Your task to perform on an android device: open app "Duolingo: language lessons" Image 0: 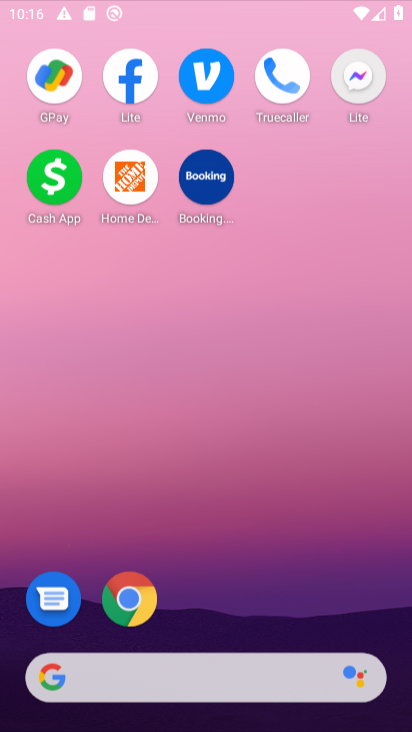
Step 0: drag from (219, 582) to (243, 176)
Your task to perform on an android device: open app "Duolingo: language lessons" Image 1: 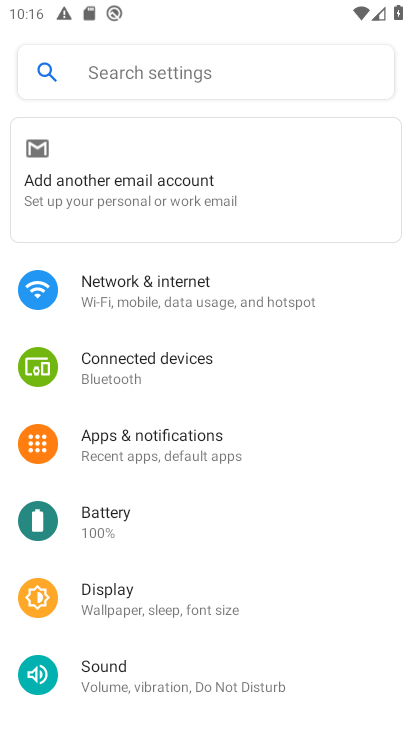
Step 1: press home button
Your task to perform on an android device: open app "Duolingo: language lessons" Image 2: 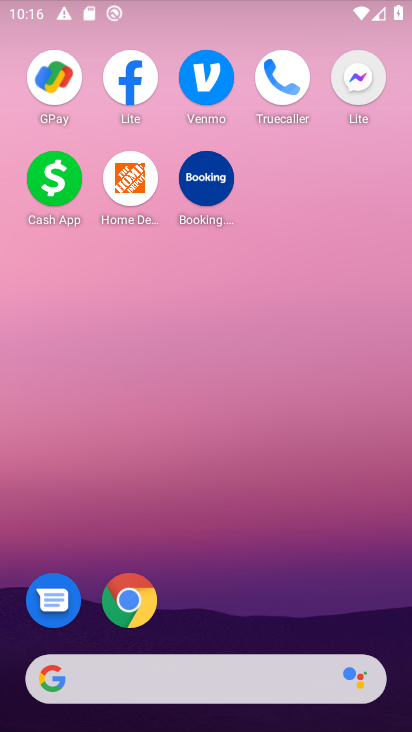
Step 2: drag from (169, 552) to (165, 157)
Your task to perform on an android device: open app "Duolingo: language lessons" Image 3: 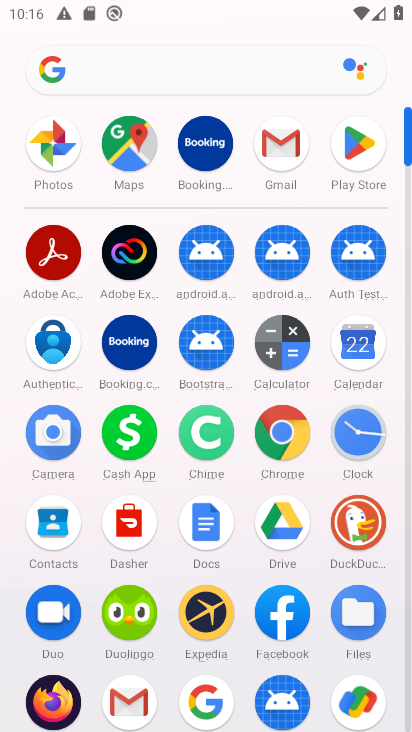
Step 3: click (346, 150)
Your task to perform on an android device: open app "Duolingo: language lessons" Image 4: 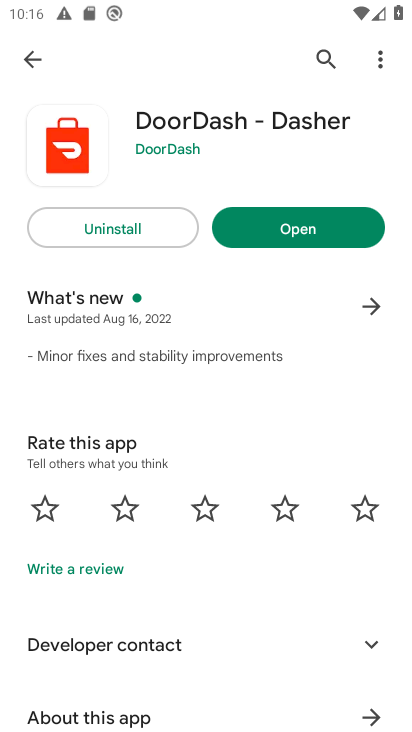
Step 4: click (333, 61)
Your task to perform on an android device: open app "Duolingo: language lessons" Image 5: 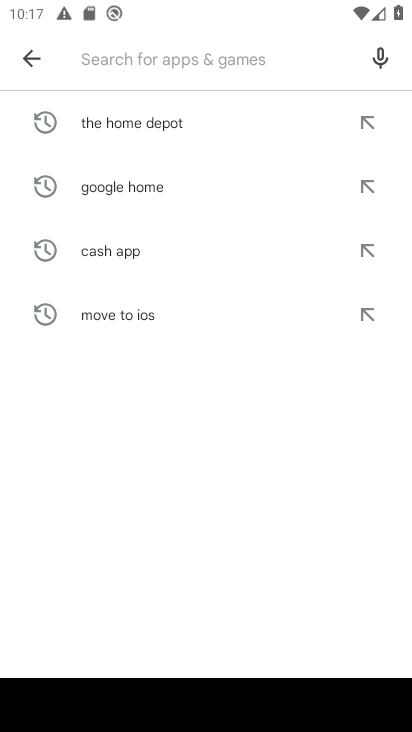
Step 5: type "Duolingo: language lessons"
Your task to perform on an android device: open app "Duolingo: language lessons" Image 6: 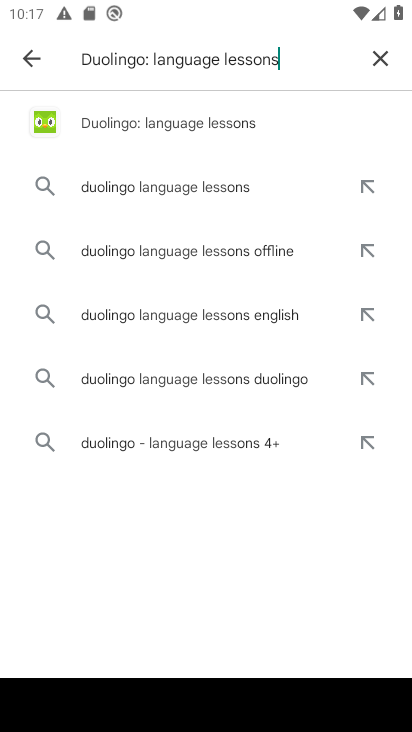
Step 6: type ""
Your task to perform on an android device: open app "Duolingo: language lessons" Image 7: 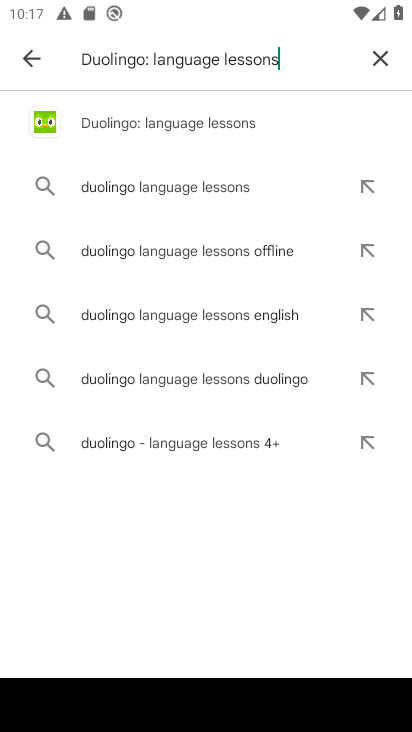
Step 7: click (134, 126)
Your task to perform on an android device: open app "Duolingo: language lessons" Image 8: 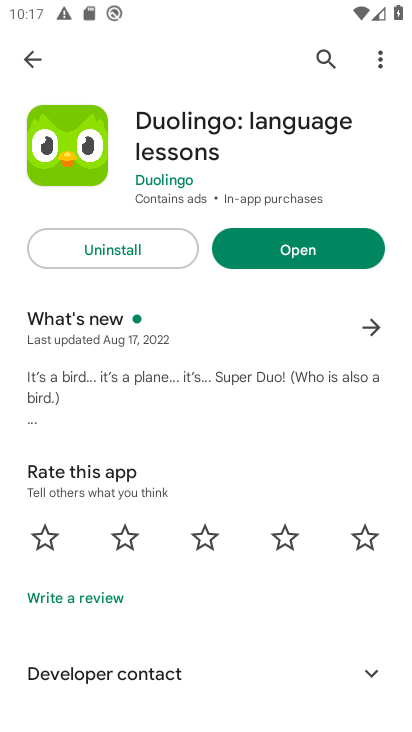
Step 8: click (294, 245)
Your task to perform on an android device: open app "Duolingo: language lessons" Image 9: 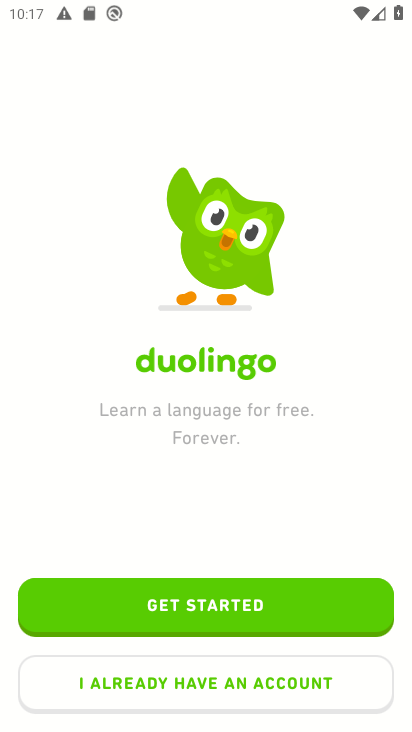
Step 9: task complete